Your task to perform on an android device: see sites visited before in the chrome app Image 0: 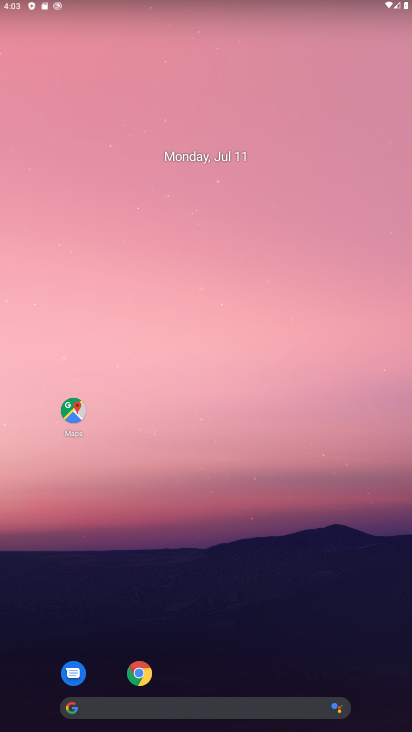
Step 0: click (140, 673)
Your task to perform on an android device: see sites visited before in the chrome app Image 1: 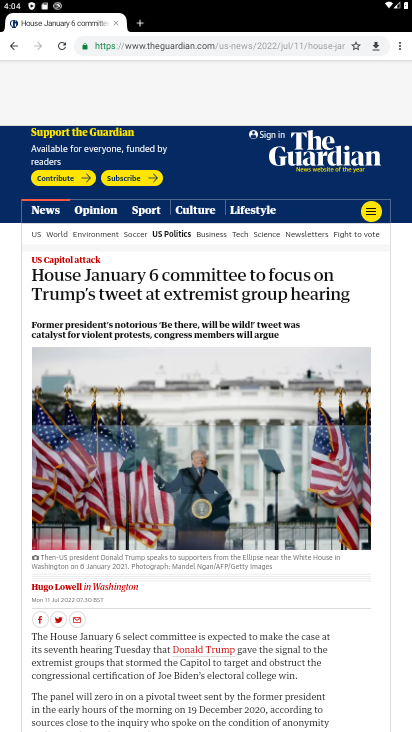
Step 1: click (401, 46)
Your task to perform on an android device: see sites visited before in the chrome app Image 2: 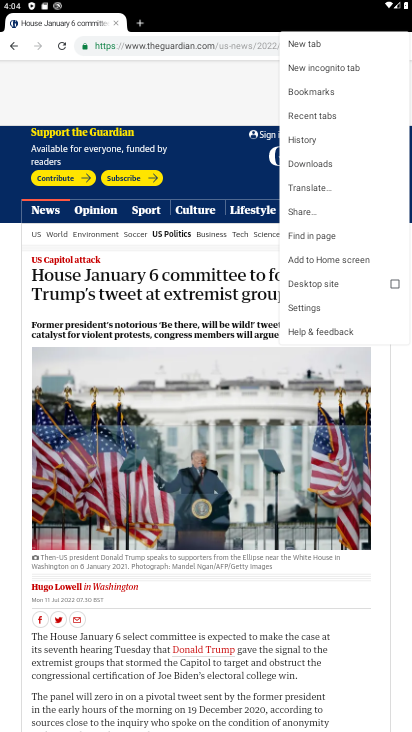
Step 2: click (307, 140)
Your task to perform on an android device: see sites visited before in the chrome app Image 3: 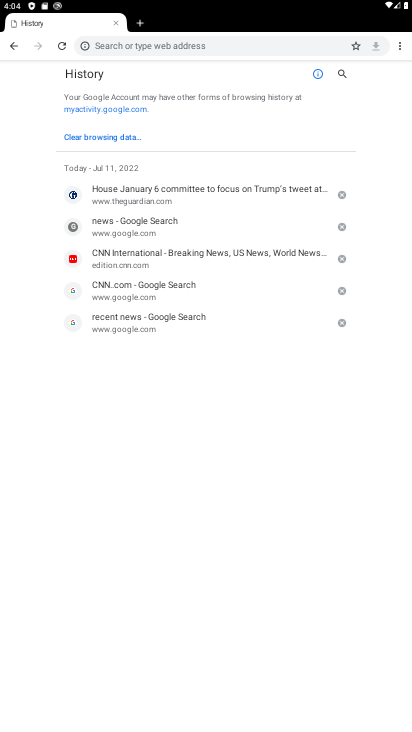
Step 3: task complete